Your task to perform on an android device: check out phone information Image 0: 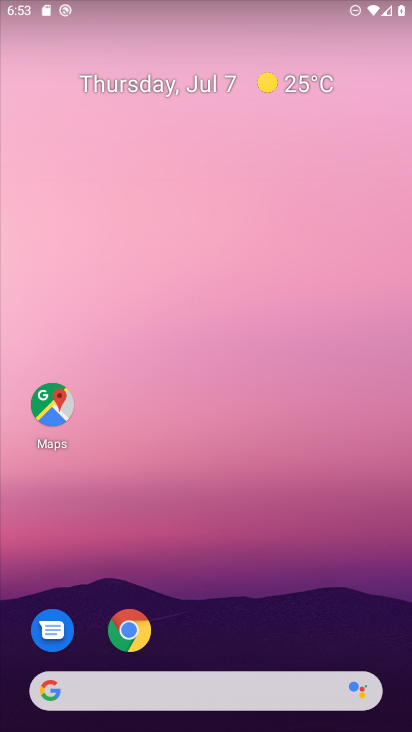
Step 0: drag from (217, 605) to (135, 206)
Your task to perform on an android device: check out phone information Image 1: 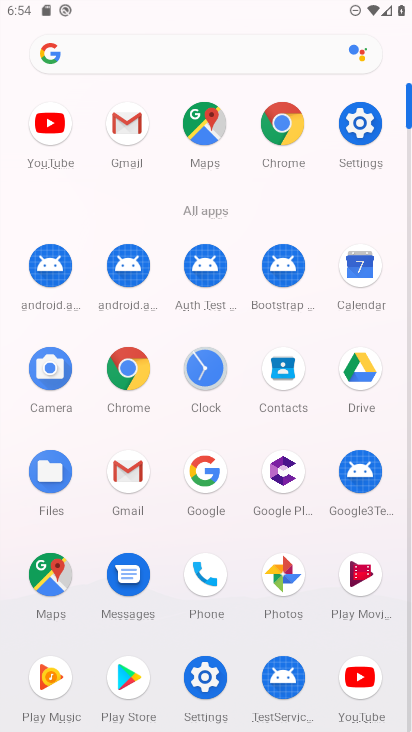
Step 1: click (356, 120)
Your task to perform on an android device: check out phone information Image 2: 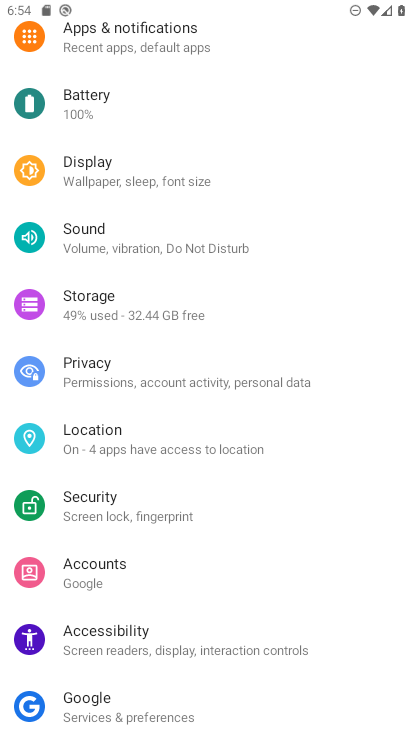
Step 2: drag from (211, 585) to (196, 335)
Your task to perform on an android device: check out phone information Image 3: 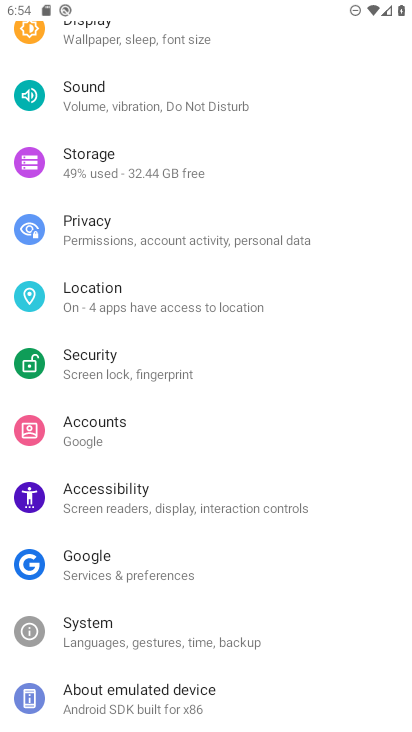
Step 3: click (141, 681)
Your task to perform on an android device: check out phone information Image 4: 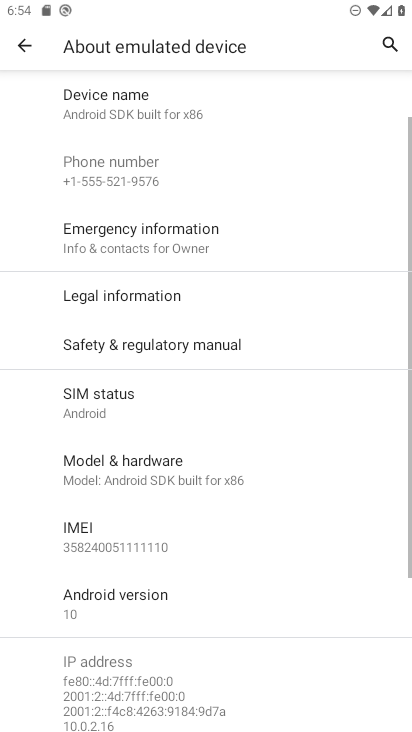
Step 4: task complete